Your task to perform on an android device: turn off data saver in the chrome app Image 0: 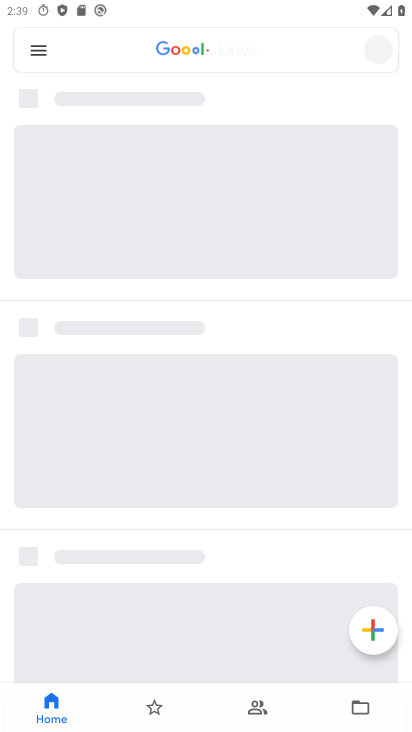
Step 0: drag from (215, 646) to (281, 46)
Your task to perform on an android device: turn off data saver in the chrome app Image 1: 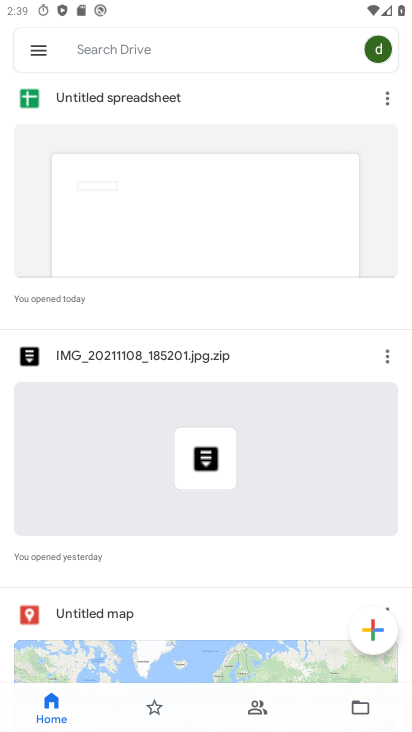
Step 1: press home button
Your task to perform on an android device: turn off data saver in the chrome app Image 2: 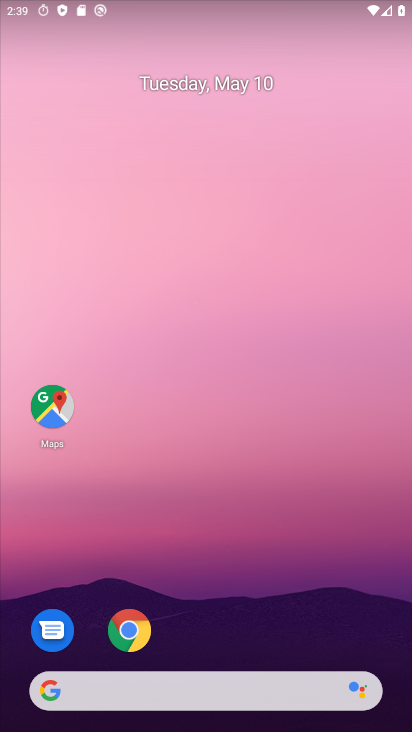
Step 2: click (119, 632)
Your task to perform on an android device: turn off data saver in the chrome app Image 3: 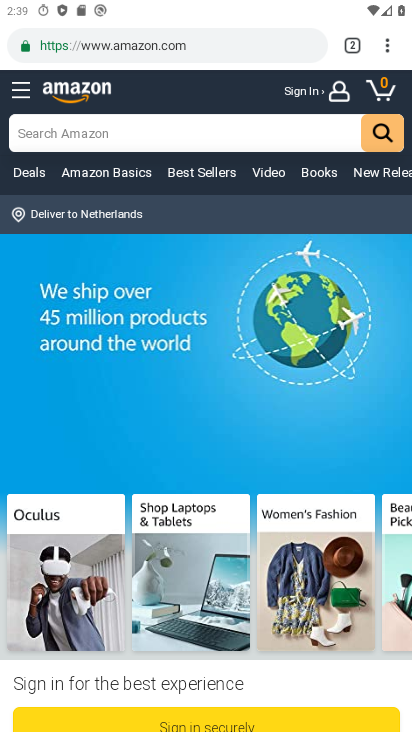
Step 3: click (387, 41)
Your task to perform on an android device: turn off data saver in the chrome app Image 4: 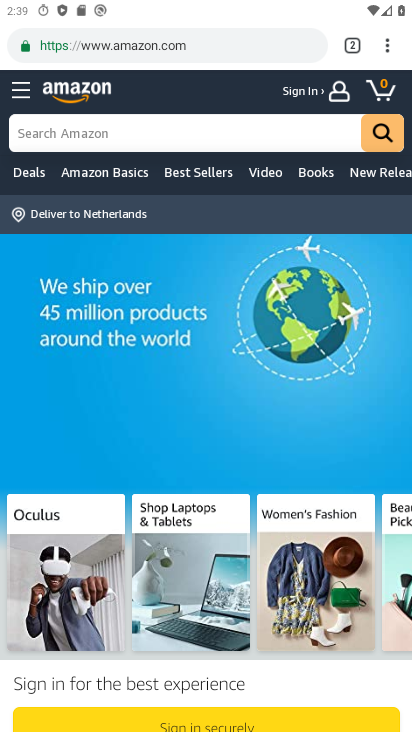
Step 4: click (383, 46)
Your task to perform on an android device: turn off data saver in the chrome app Image 5: 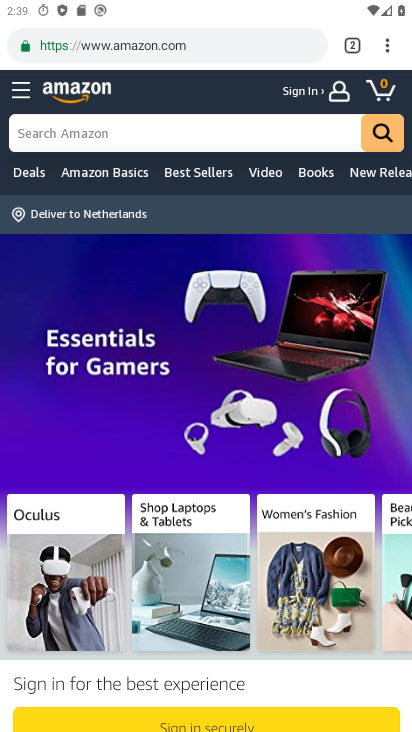
Step 5: click (383, 36)
Your task to perform on an android device: turn off data saver in the chrome app Image 6: 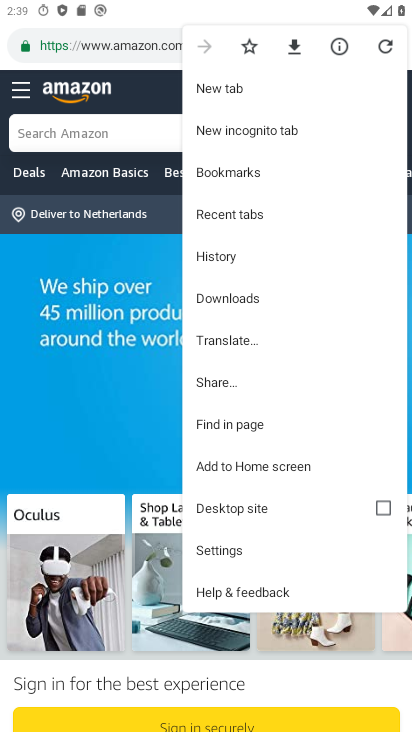
Step 6: click (242, 556)
Your task to perform on an android device: turn off data saver in the chrome app Image 7: 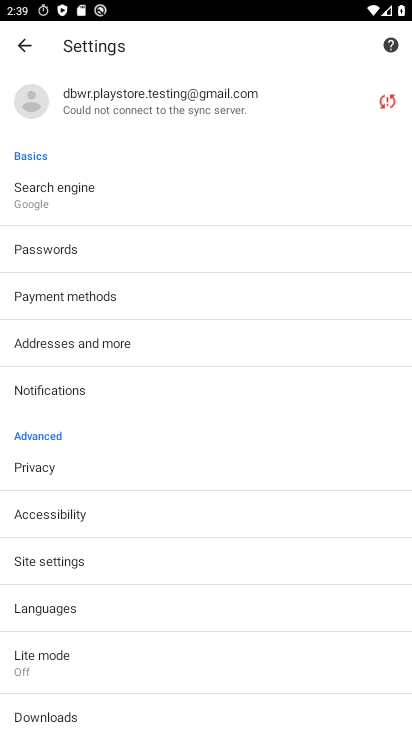
Step 7: click (65, 653)
Your task to perform on an android device: turn off data saver in the chrome app Image 8: 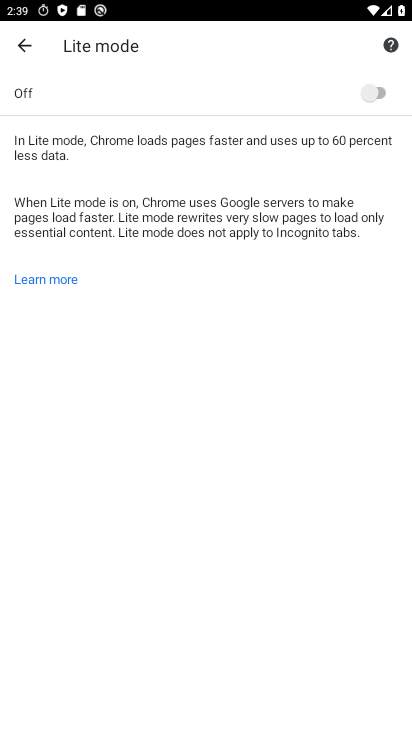
Step 8: task complete